Your task to perform on an android device: Go to eBay Image 0: 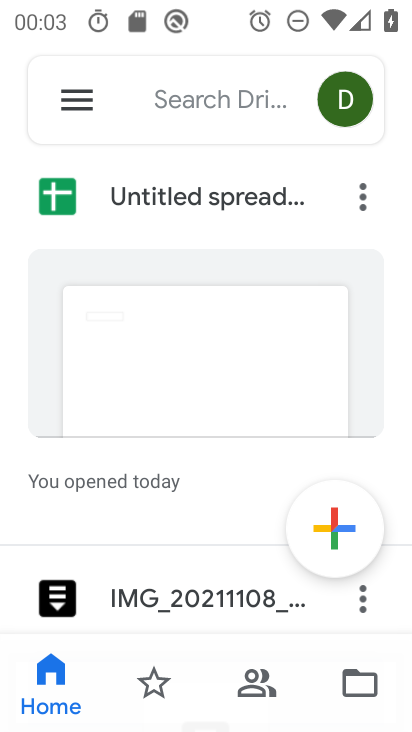
Step 0: press home button
Your task to perform on an android device: Go to eBay Image 1: 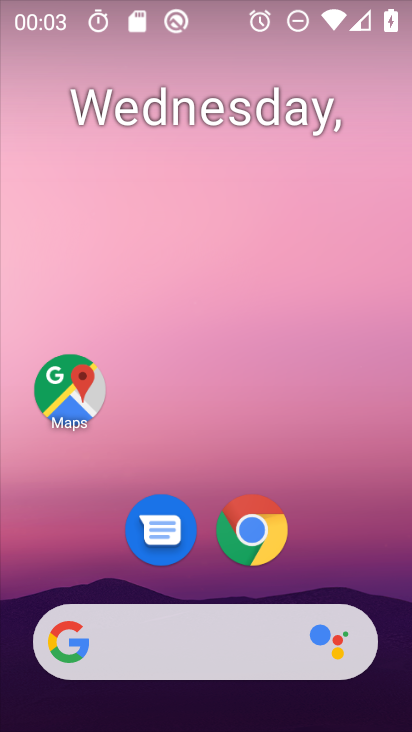
Step 1: click (247, 535)
Your task to perform on an android device: Go to eBay Image 2: 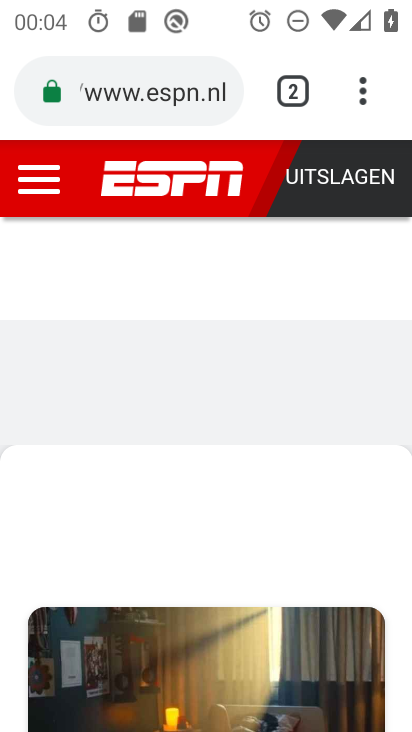
Step 2: click (111, 105)
Your task to perform on an android device: Go to eBay Image 3: 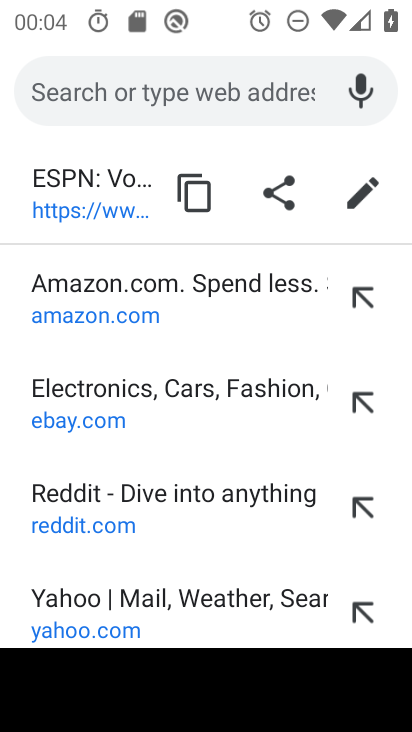
Step 3: click (32, 420)
Your task to perform on an android device: Go to eBay Image 4: 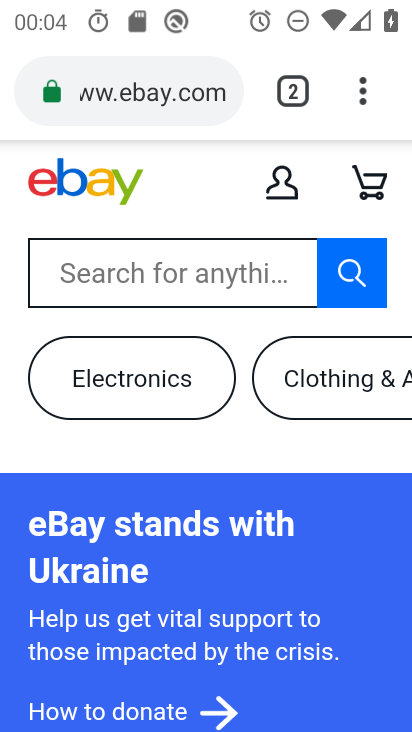
Step 4: task complete